Your task to perform on an android device: check storage Image 0: 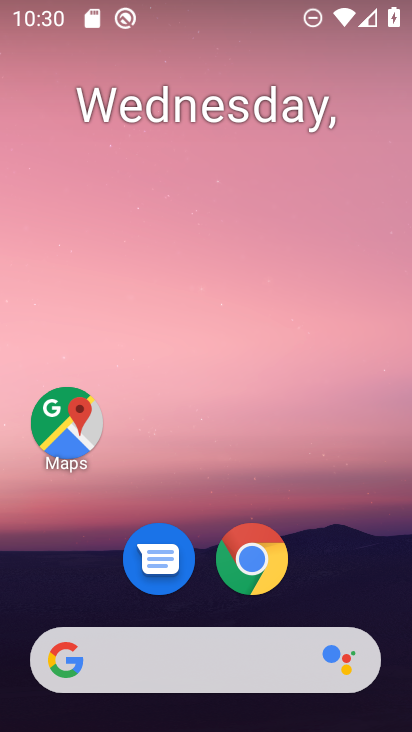
Step 0: drag from (333, 577) to (348, 118)
Your task to perform on an android device: check storage Image 1: 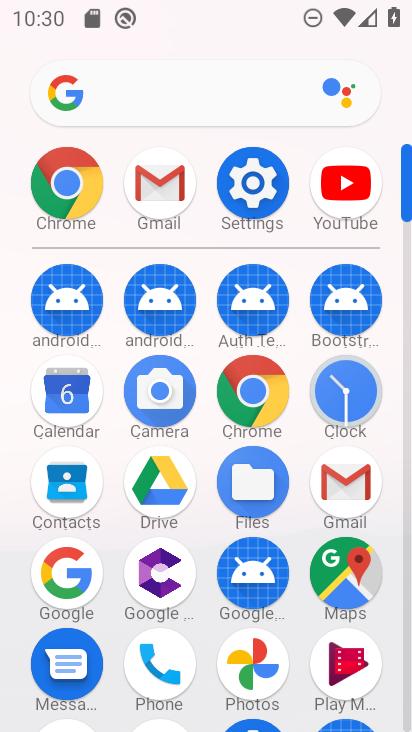
Step 1: click (268, 191)
Your task to perform on an android device: check storage Image 2: 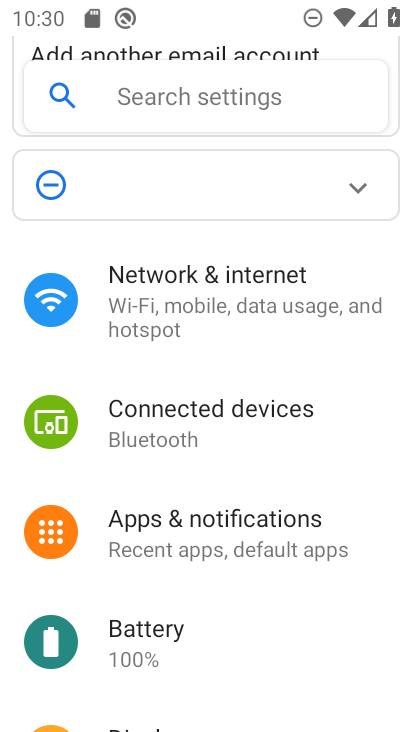
Step 2: drag from (354, 449) to (349, 346)
Your task to perform on an android device: check storage Image 3: 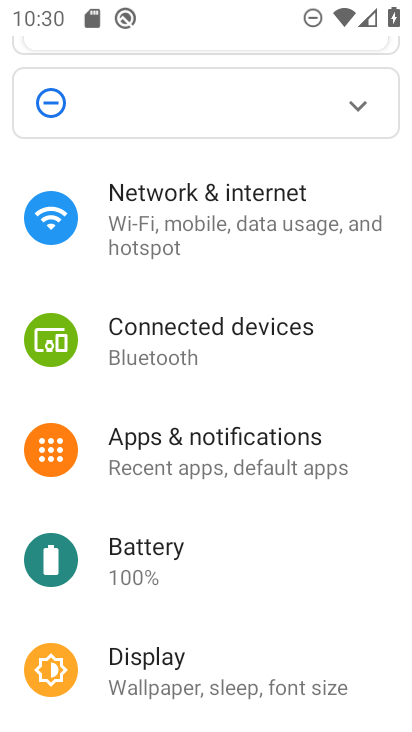
Step 3: drag from (364, 484) to (375, 371)
Your task to perform on an android device: check storage Image 4: 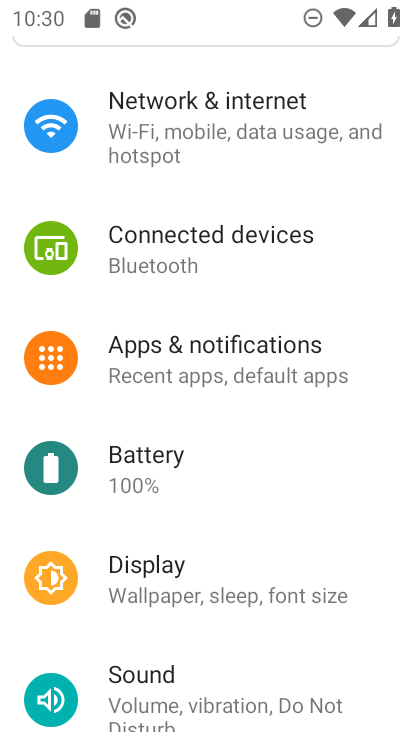
Step 4: drag from (362, 490) to (353, 366)
Your task to perform on an android device: check storage Image 5: 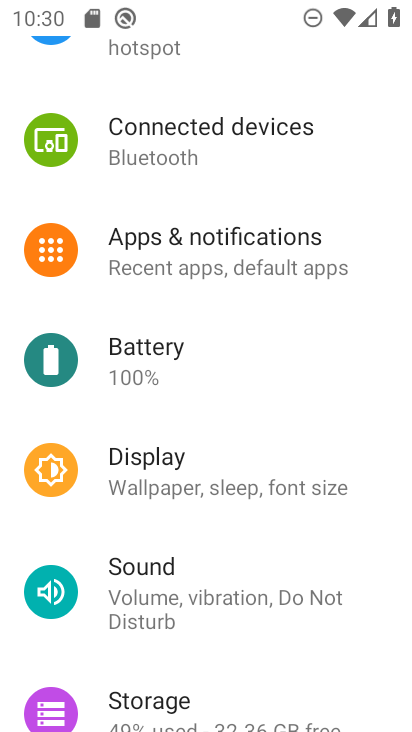
Step 5: drag from (371, 529) to (368, 413)
Your task to perform on an android device: check storage Image 6: 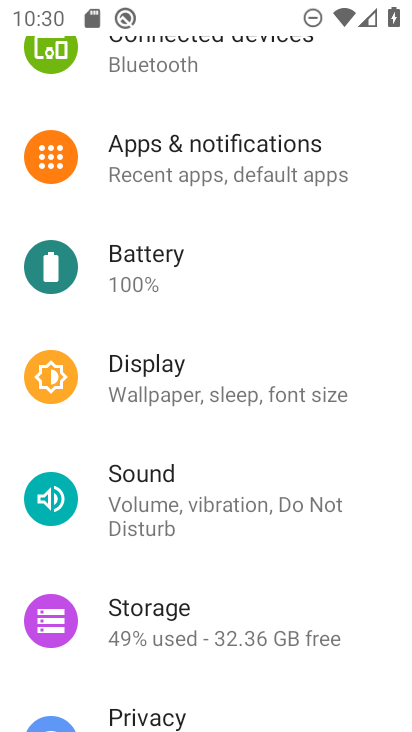
Step 6: drag from (358, 567) to (374, 433)
Your task to perform on an android device: check storage Image 7: 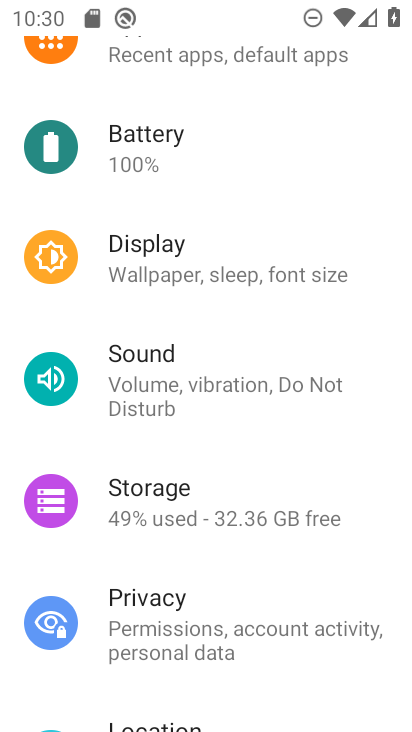
Step 7: drag from (354, 581) to (354, 475)
Your task to perform on an android device: check storage Image 8: 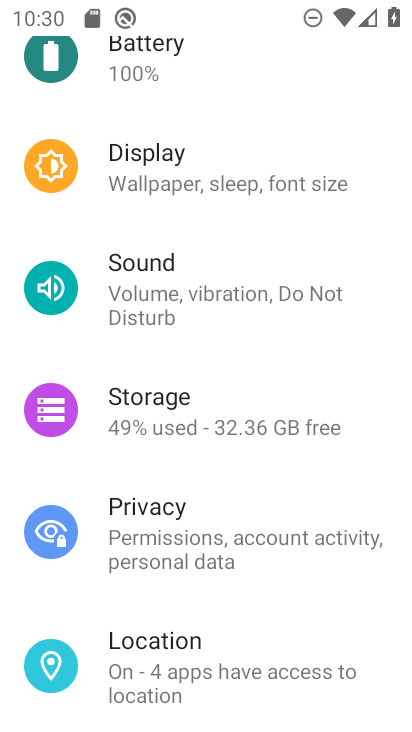
Step 8: drag from (356, 608) to (381, 432)
Your task to perform on an android device: check storage Image 9: 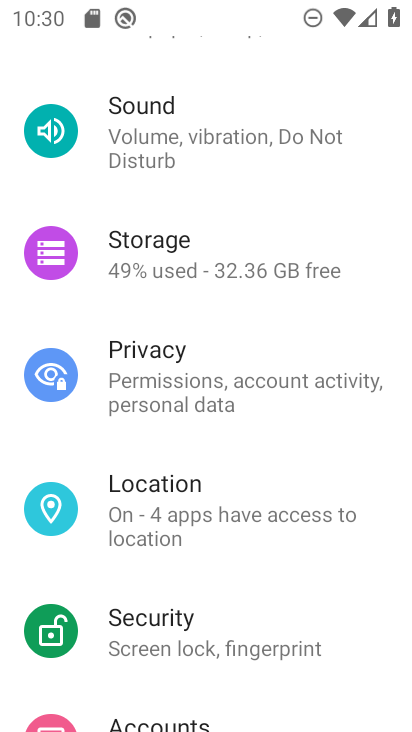
Step 9: drag from (360, 573) to (355, 434)
Your task to perform on an android device: check storage Image 10: 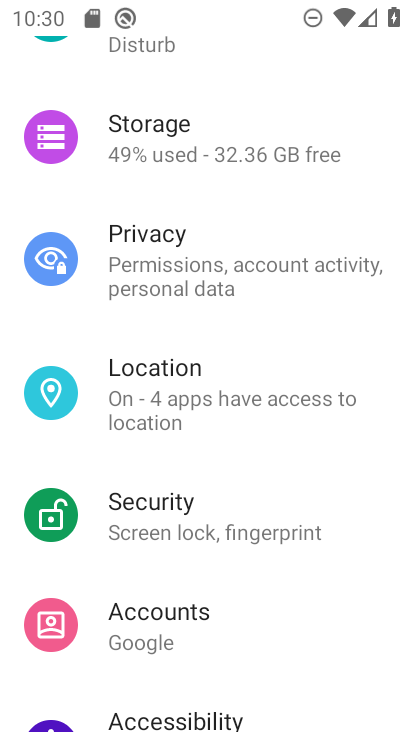
Step 10: click (288, 161)
Your task to perform on an android device: check storage Image 11: 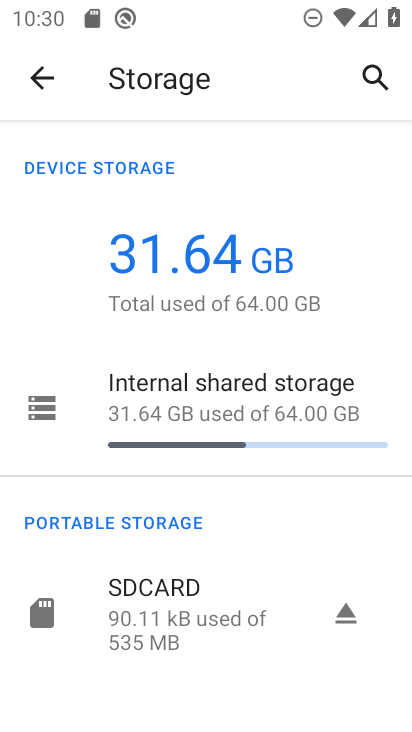
Step 11: task complete